Your task to perform on an android device: change notification settings in the gmail app Image 0: 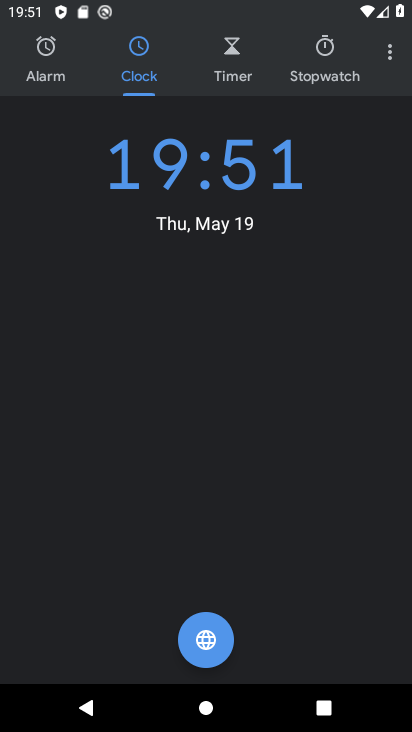
Step 0: press home button
Your task to perform on an android device: change notification settings in the gmail app Image 1: 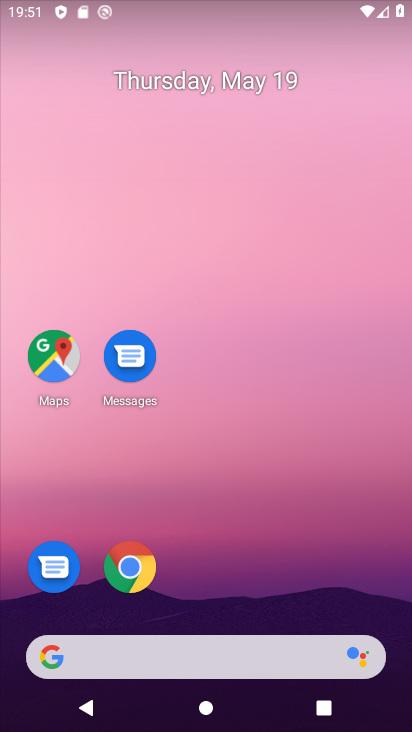
Step 1: drag from (164, 627) to (165, 164)
Your task to perform on an android device: change notification settings in the gmail app Image 2: 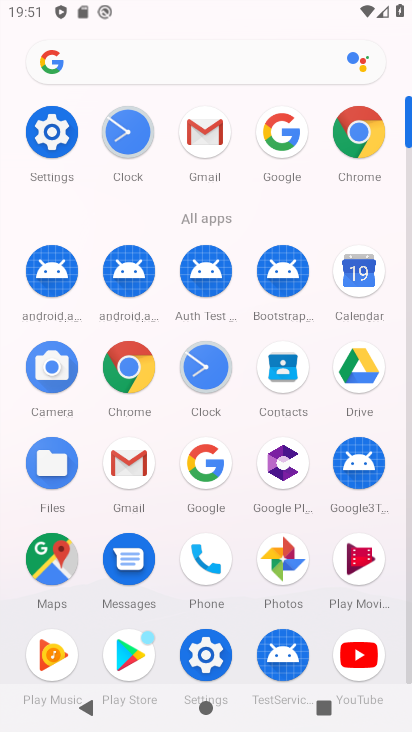
Step 2: click (126, 461)
Your task to perform on an android device: change notification settings in the gmail app Image 3: 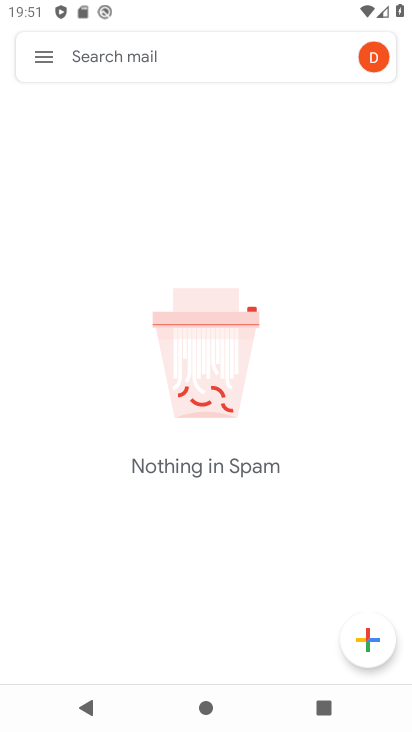
Step 3: click (29, 62)
Your task to perform on an android device: change notification settings in the gmail app Image 4: 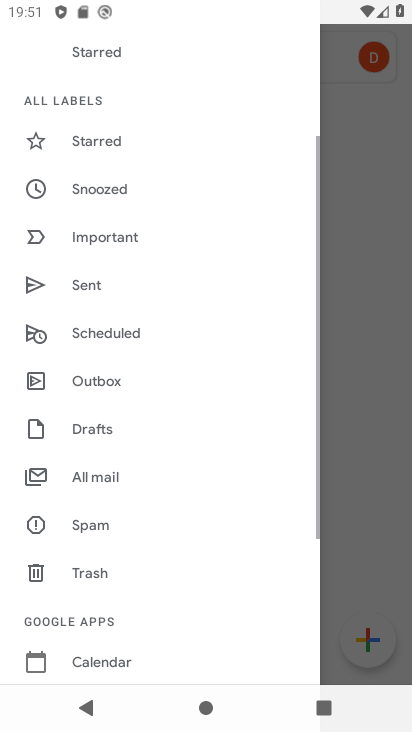
Step 4: drag from (135, 550) to (105, 23)
Your task to perform on an android device: change notification settings in the gmail app Image 5: 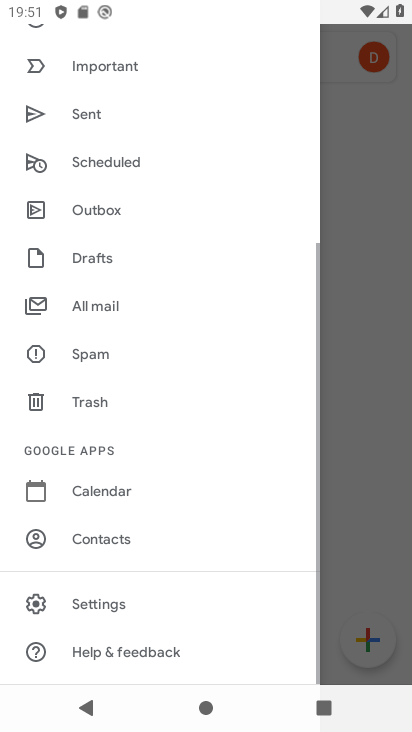
Step 5: click (108, 611)
Your task to perform on an android device: change notification settings in the gmail app Image 6: 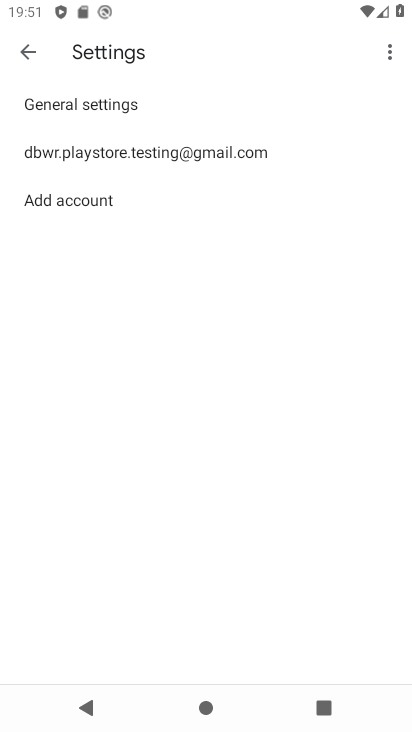
Step 6: click (84, 99)
Your task to perform on an android device: change notification settings in the gmail app Image 7: 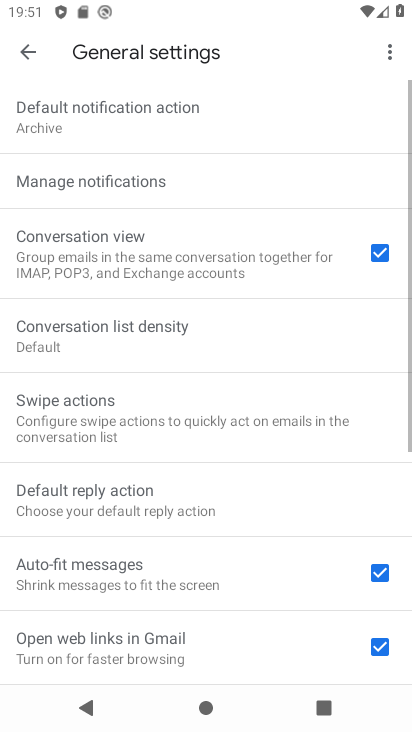
Step 7: click (109, 167)
Your task to perform on an android device: change notification settings in the gmail app Image 8: 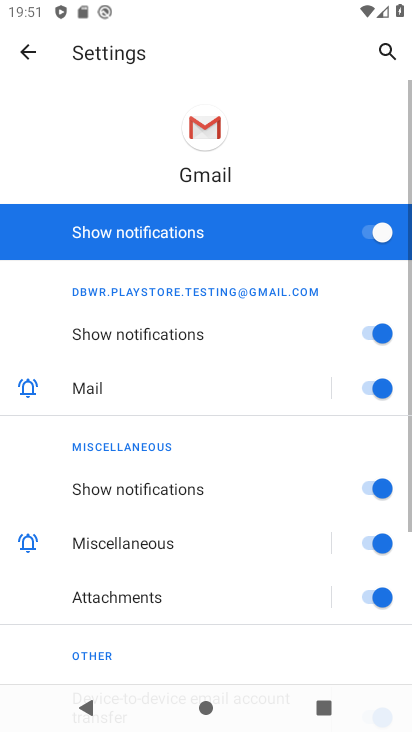
Step 8: click (384, 231)
Your task to perform on an android device: change notification settings in the gmail app Image 9: 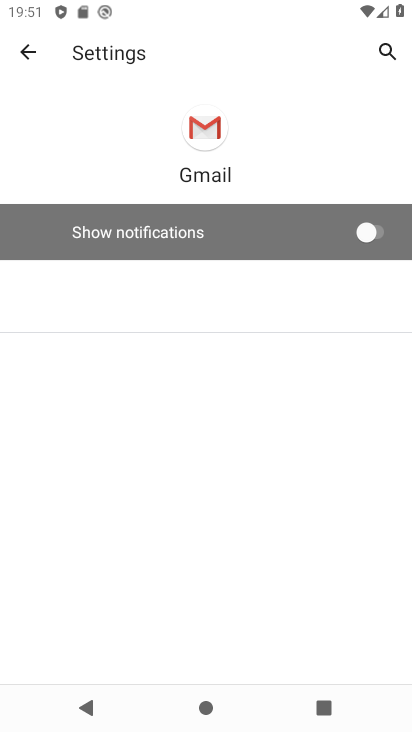
Step 9: task complete